Your task to perform on an android device: turn on data saver in the chrome app Image 0: 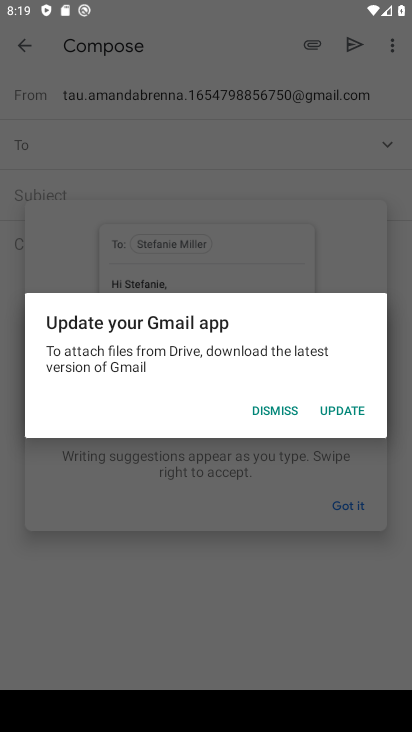
Step 0: press home button
Your task to perform on an android device: turn on data saver in the chrome app Image 1: 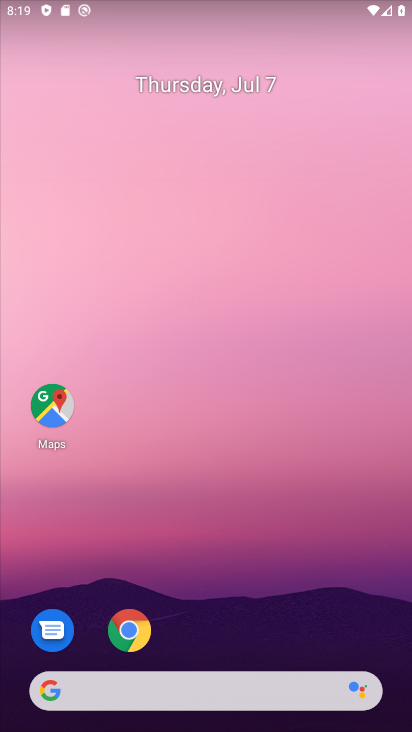
Step 1: click (145, 630)
Your task to perform on an android device: turn on data saver in the chrome app Image 2: 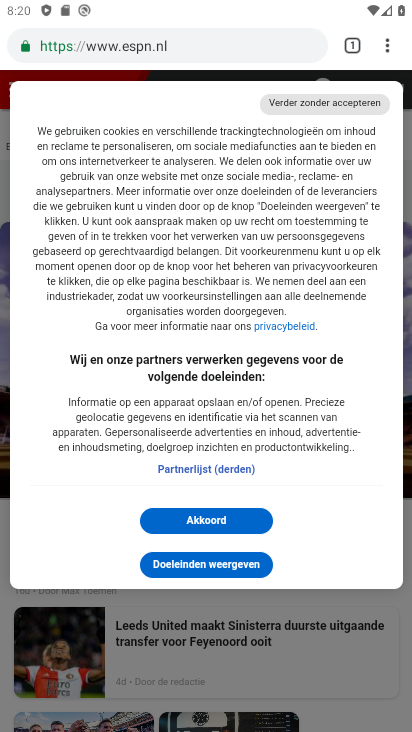
Step 2: click (179, 518)
Your task to perform on an android device: turn on data saver in the chrome app Image 3: 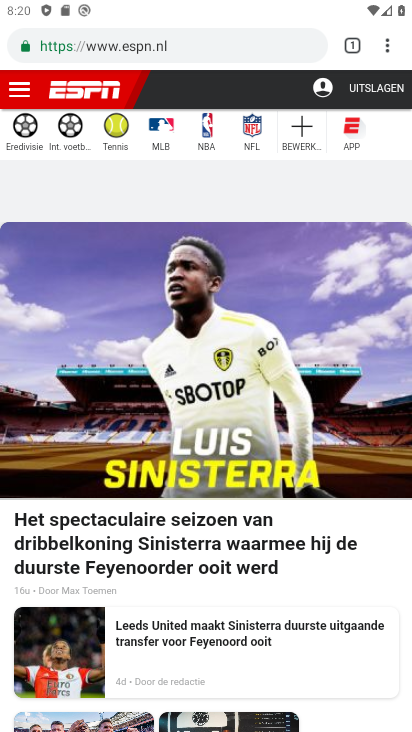
Step 3: click (384, 54)
Your task to perform on an android device: turn on data saver in the chrome app Image 4: 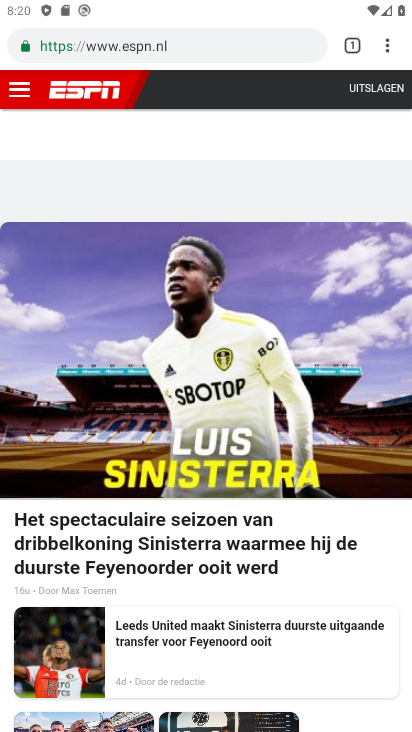
Step 4: drag from (389, 46) to (243, 593)
Your task to perform on an android device: turn on data saver in the chrome app Image 5: 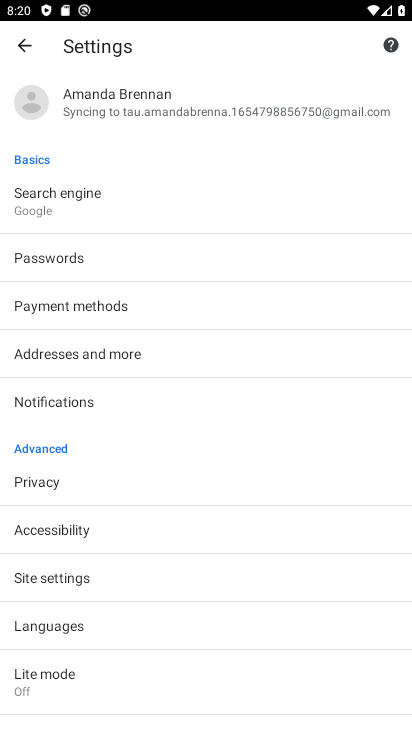
Step 5: click (112, 570)
Your task to perform on an android device: turn on data saver in the chrome app Image 6: 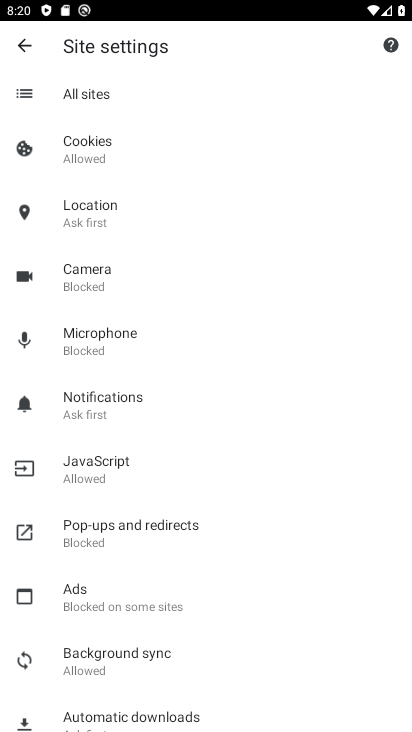
Step 6: click (27, 40)
Your task to perform on an android device: turn on data saver in the chrome app Image 7: 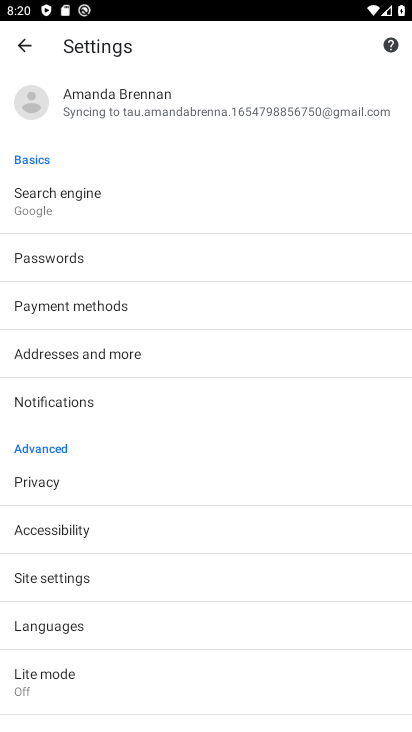
Step 7: click (75, 679)
Your task to perform on an android device: turn on data saver in the chrome app Image 8: 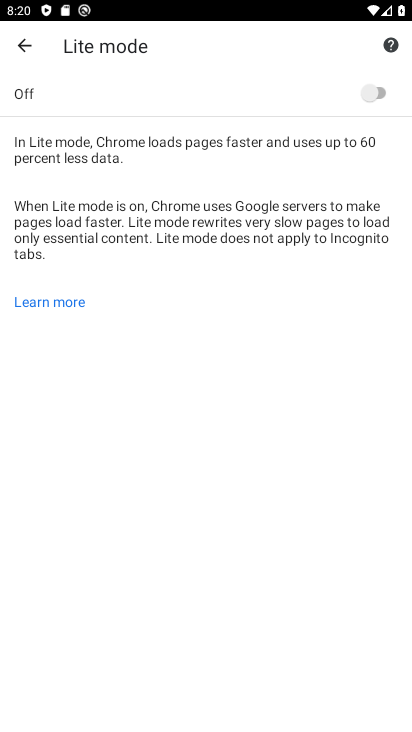
Step 8: click (376, 93)
Your task to perform on an android device: turn on data saver in the chrome app Image 9: 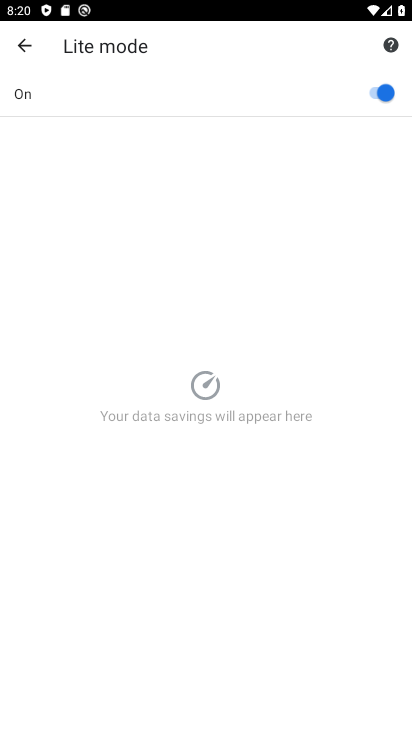
Step 9: task complete